Your task to perform on an android device: set the stopwatch Image 0: 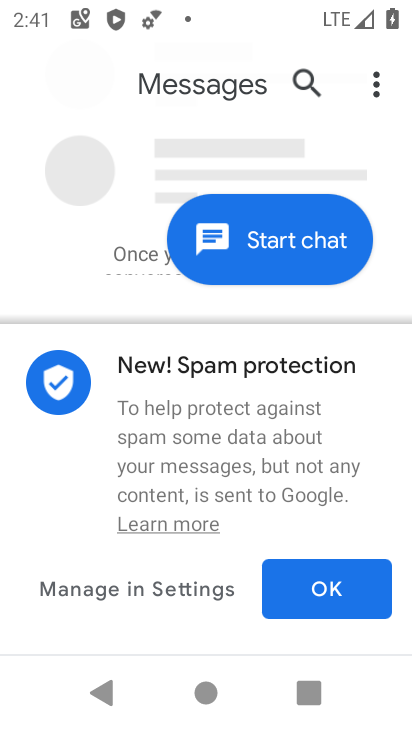
Step 0: press home button
Your task to perform on an android device: set the stopwatch Image 1: 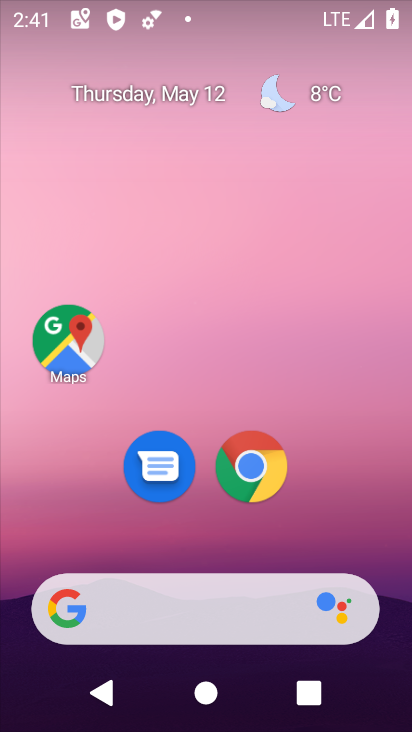
Step 1: drag from (203, 380) to (104, 111)
Your task to perform on an android device: set the stopwatch Image 2: 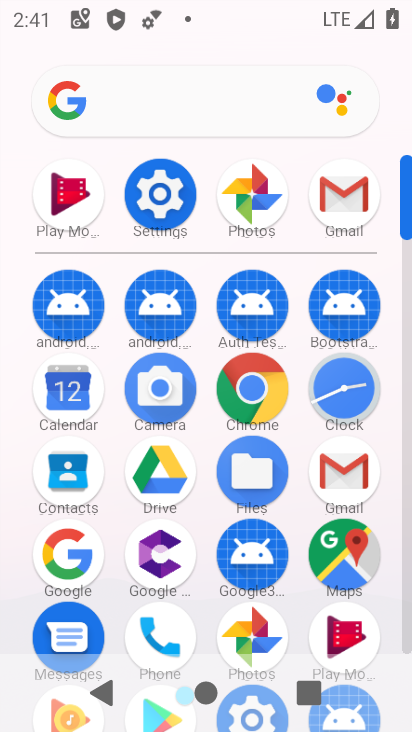
Step 2: click (340, 399)
Your task to perform on an android device: set the stopwatch Image 3: 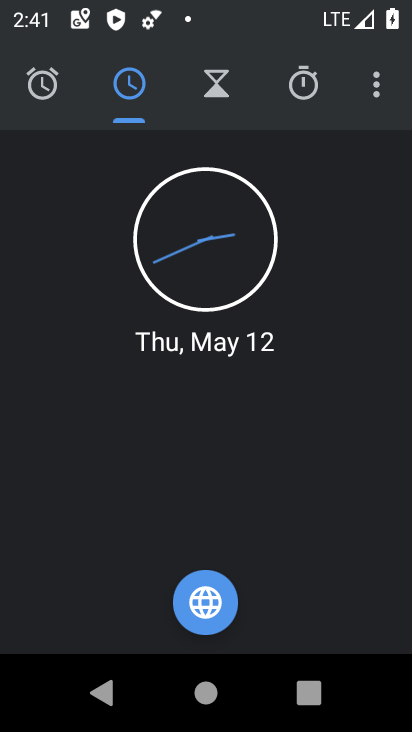
Step 3: click (314, 99)
Your task to perform on an android device: set the stopwatch Image 4: 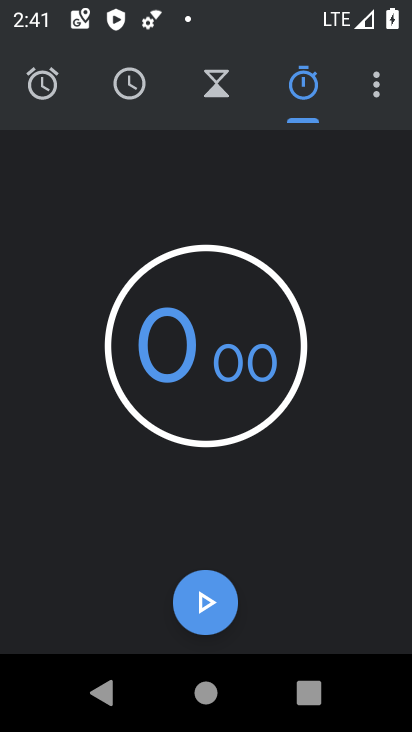
Step 4: click (204, 605)
Your task to perform on an android device: set the stopwatch Image 5: 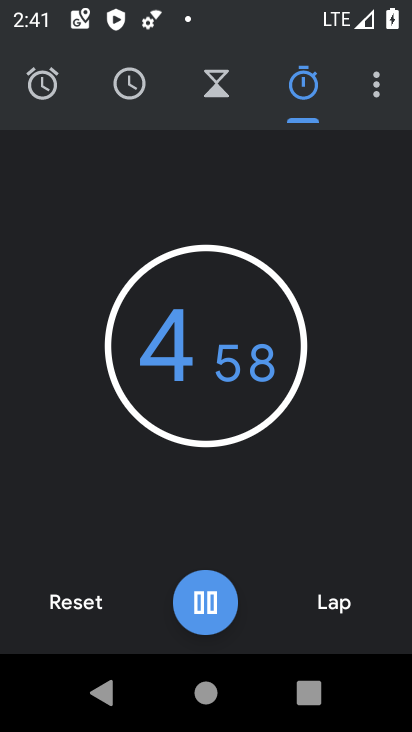
Step 5: task complete